Your task to perform on an android device: Open Reddit.com Image 0: 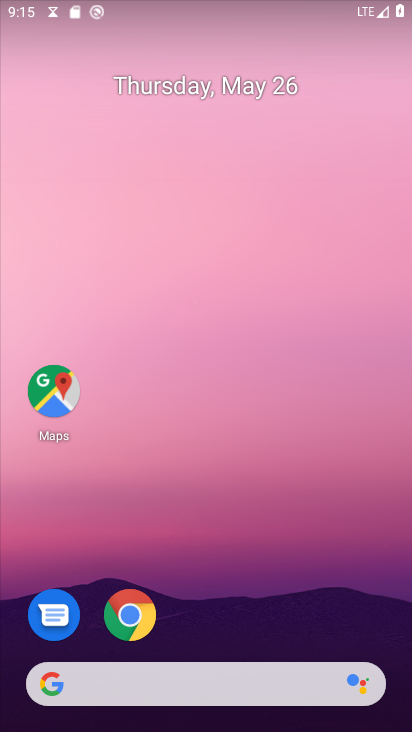
Step 0: click (129, 612)
Your task to perform on an android device: Open Reddit.com Image 1: 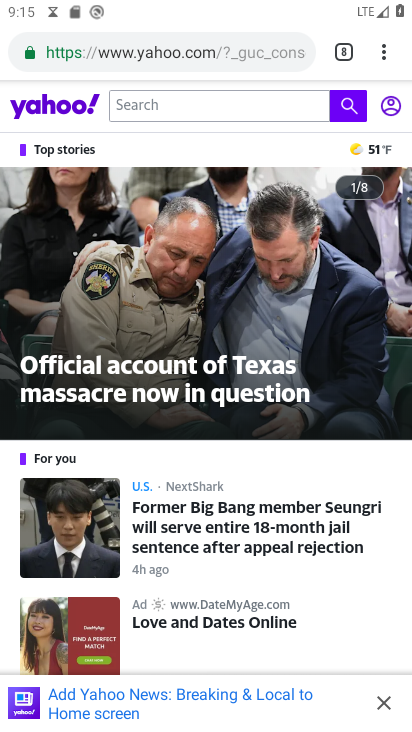
Step 1: click (378, 44)
Your task to perform on an android device: Open Reddit.com Image 2: 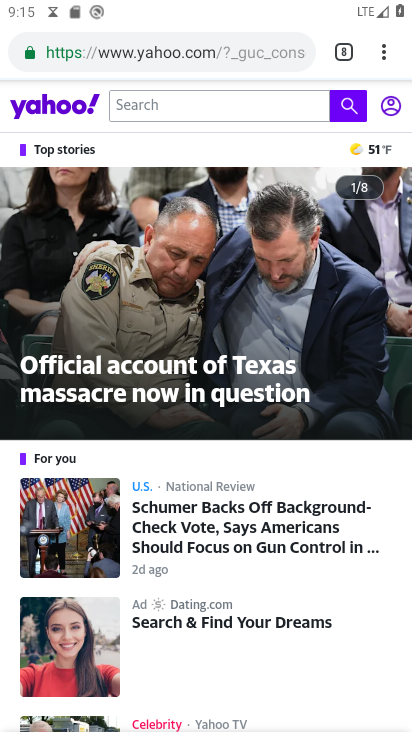
Step 2: click (381, 49)
Your task to perform on an android device: Open Reddit.com Image 3: 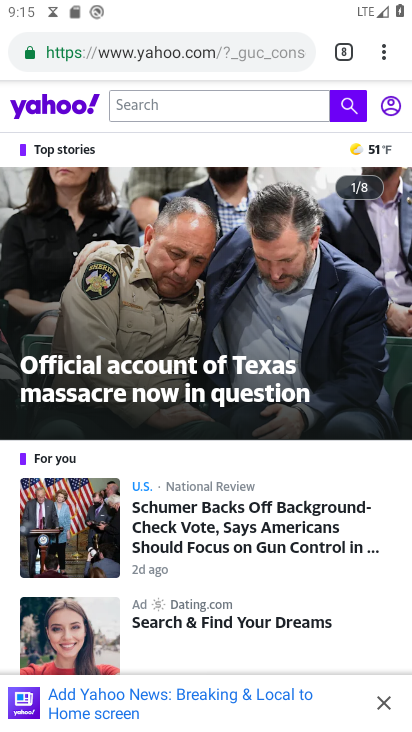
Step 3: click (385, 46)
Your task to perform on an android device: Open Reddit.com Image 4: 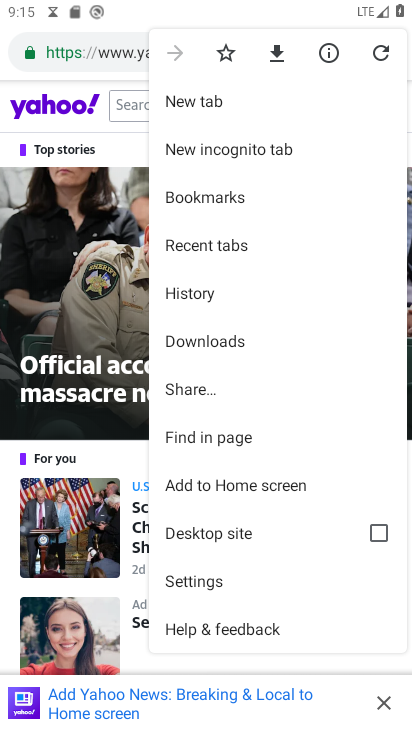
Step 4: click (208, 102)
Your task to perform on an android device: Open Reddit.com Image 5: 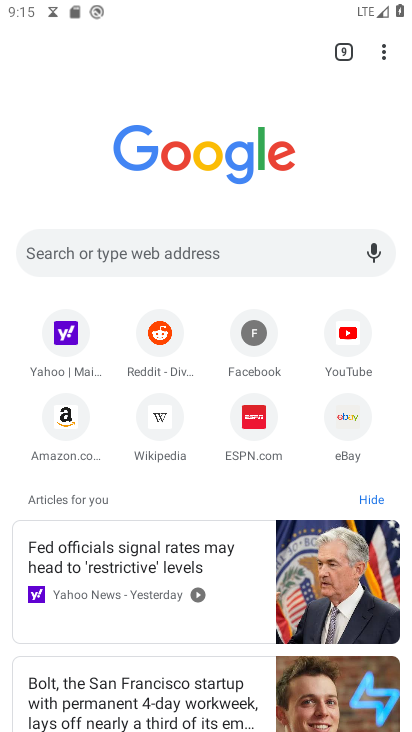
Step 5: click (157, 326)
Your task to perform on an android device: Open Reddit.com Image 6: 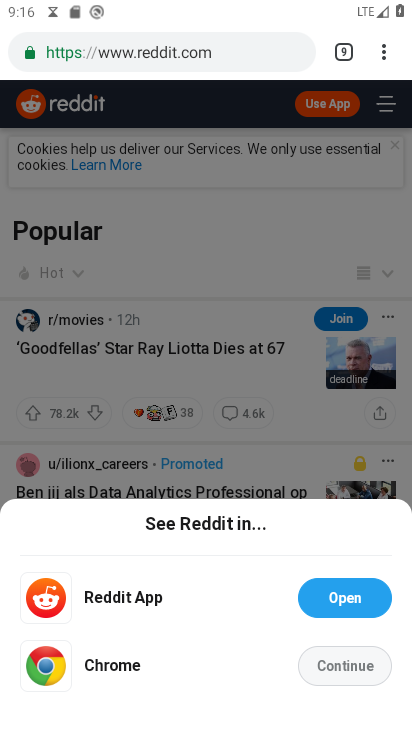
Step 6: task complete